Your task to perform on an android device: turn off picture-in-picture Image 0: 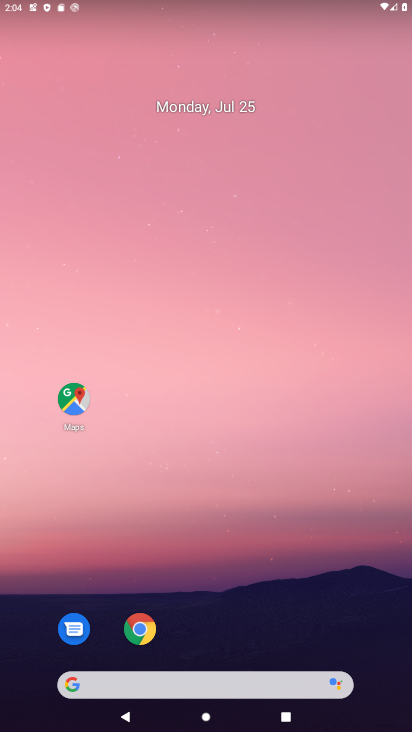
Step 0: click (148, 630)
Your task to perform on an android device: turn off picture-in-picture Image 1: 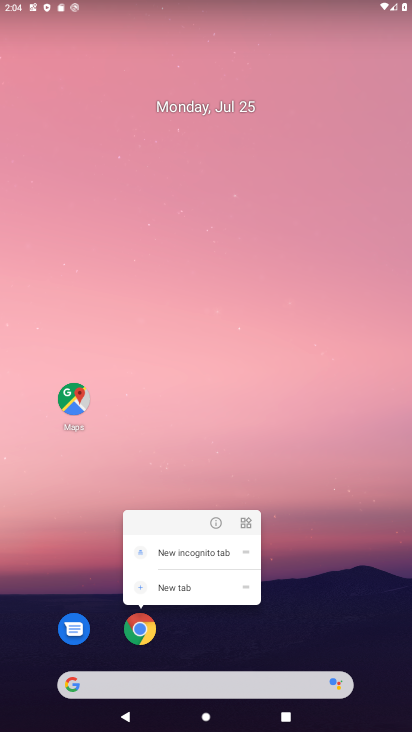
Step 1: click (215, 522)
Your task to perform on an android device: turn off picture-in-picture Image 2: 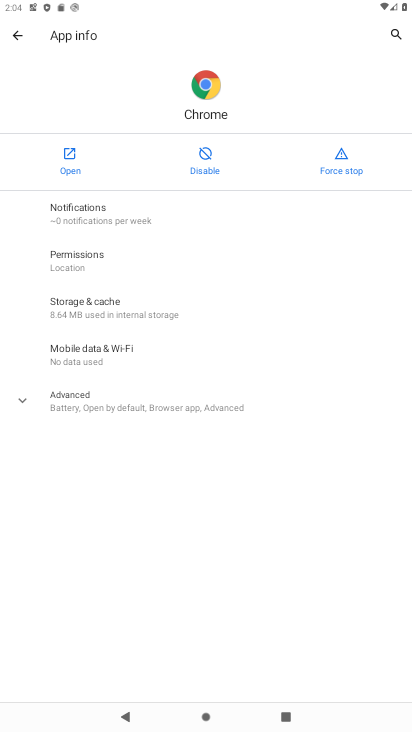
Step 2: click (97, 405)
Your task to perform on an android device: turn off picture-in-picture Image 3: 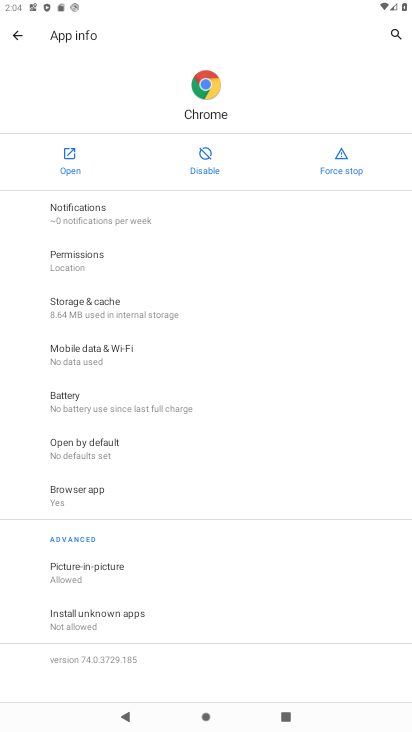
Step 3: click (77, 404)
Your task to perform on an android device: turn off picture-in-picture Image 4: 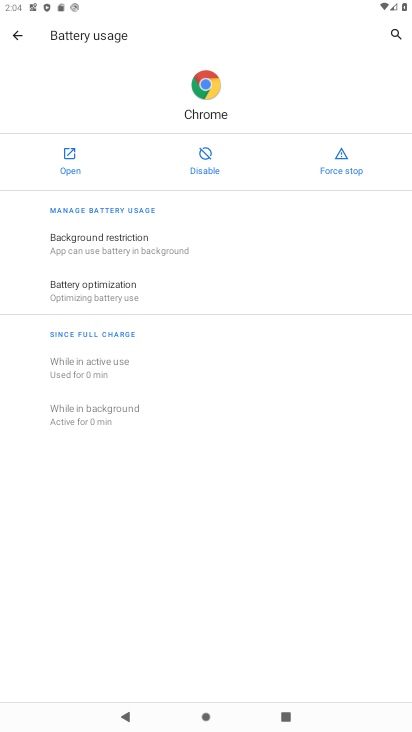
Step 4: click (18, 34)
Your task to perform on an android device: turn off picture-in-picture Image 5: 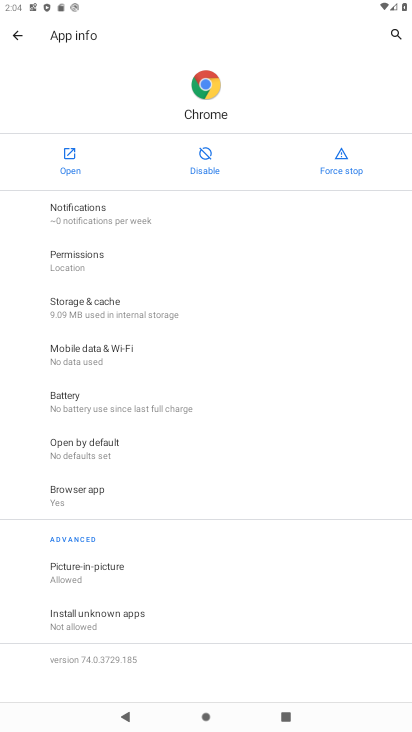
Step 5: click (90, 577)
Your task to perform on an android device: turn off picture-in-picture Image 6: 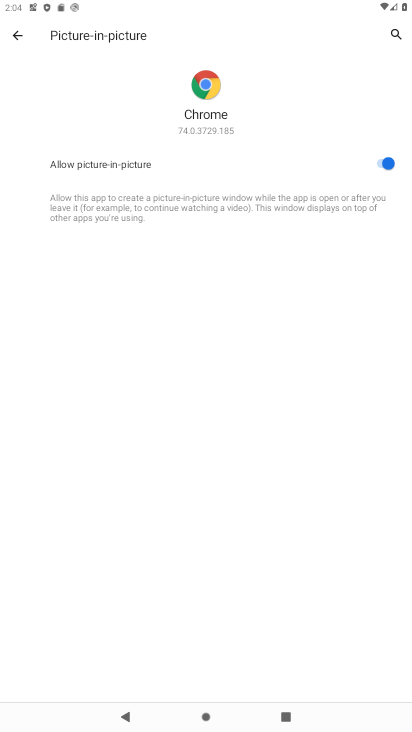
Step 6: click (365, 164)
Your task to perform on an android device: turn off picture-in-picture Image 7: 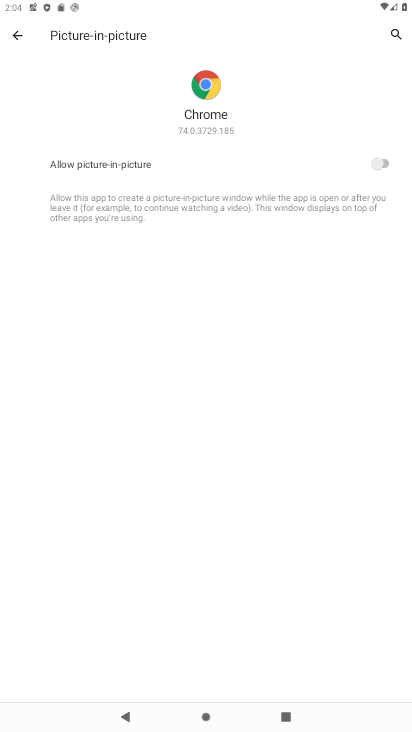
Step 7: task complete